Your task to perform on an android device: refresh tabs in the chrome app Image 0: 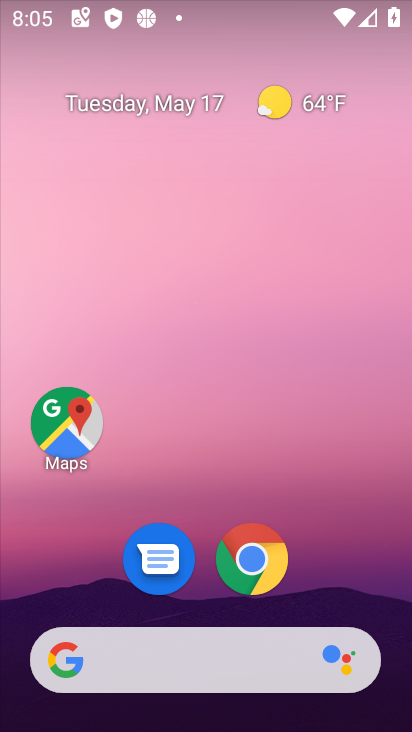
Step 0: click (251, 572)
Your task to perform on an android device: refresh tabs in the chrome app Image 1: 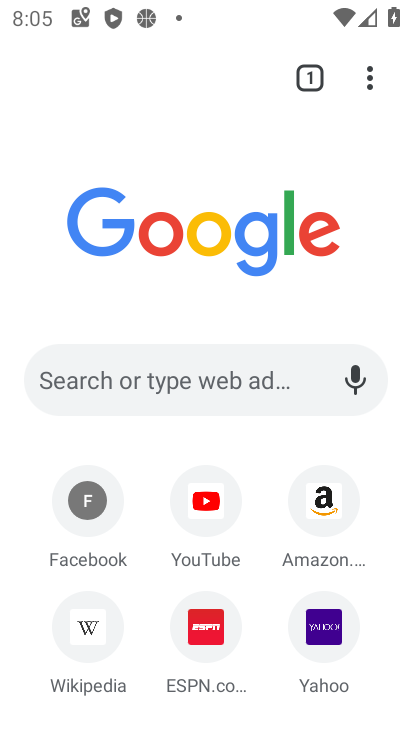
Step 1: click (377, 84)
Your task to perform on an android device: refresh tabs in the chrome app Image 2: 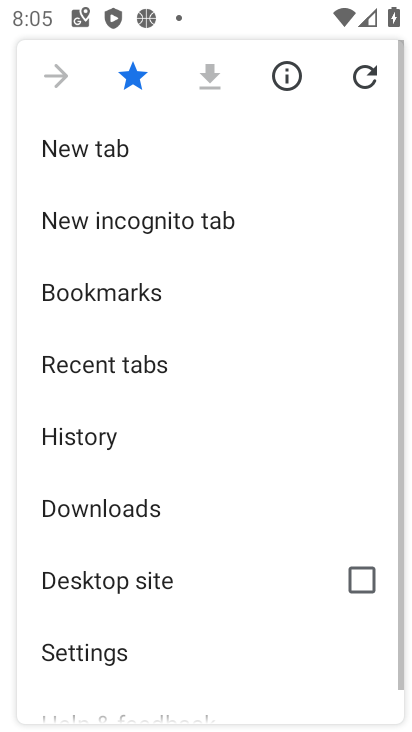
Step 2: click (367, 73)
Your task to perform on an android device: refresh tabs in the chrome app Image 3: 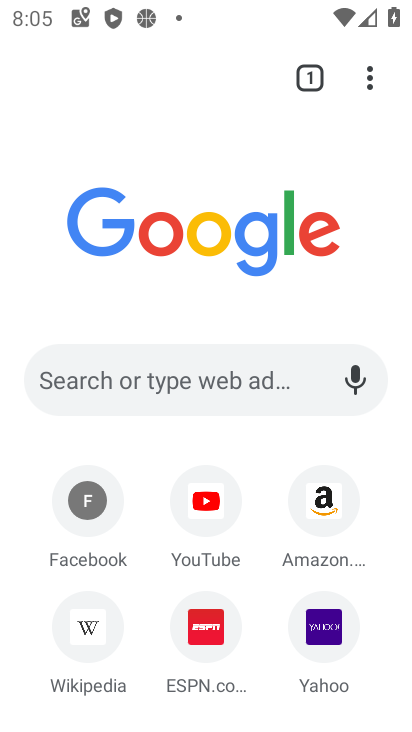
Step 3: task complete